Your task to perform on an android device: View the shopping cart on ebay.com. Image 0: 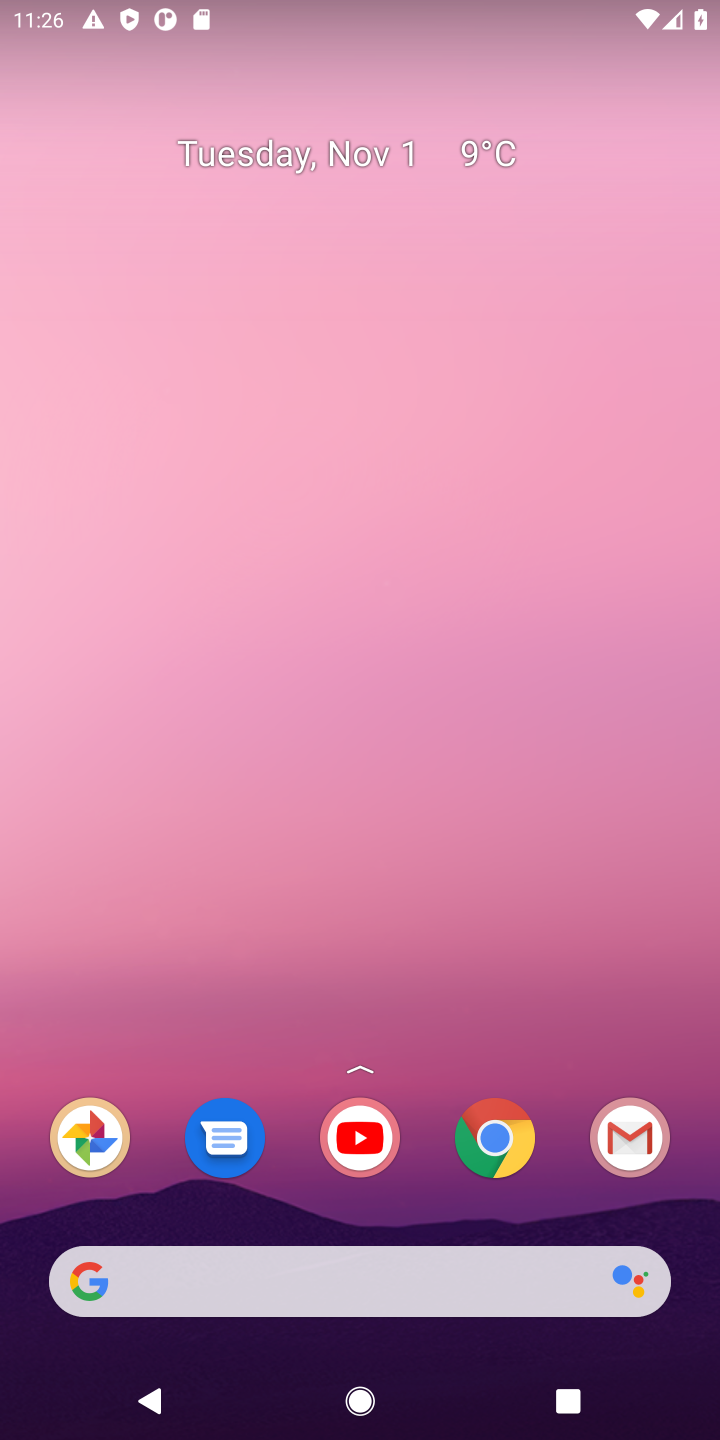
Step 0: click (457, 1274)
Your task to perform on an android device: View the shopping cart on ebay.com. Image 1: 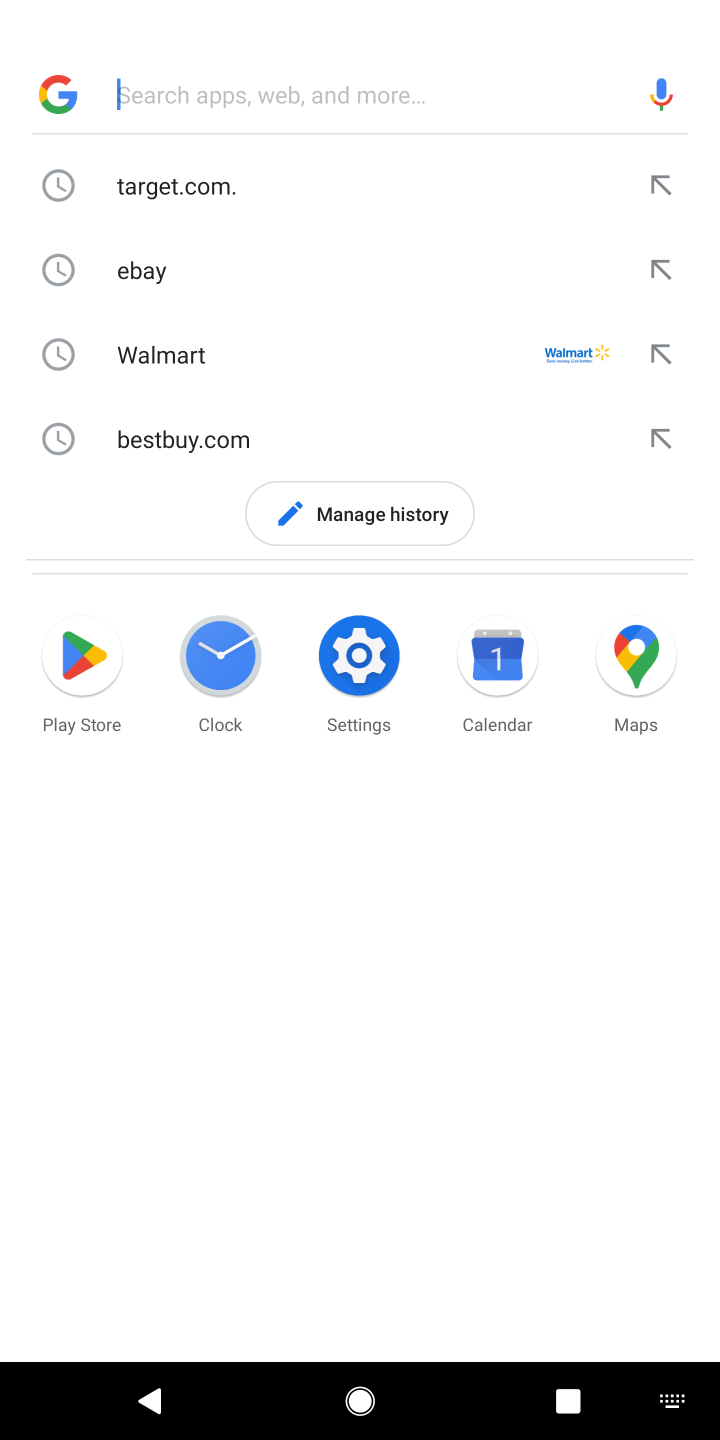
Step 1: type "ebay.com"
Your task to perform on an android device: View the shopping cart on ebay.com. Image 2: 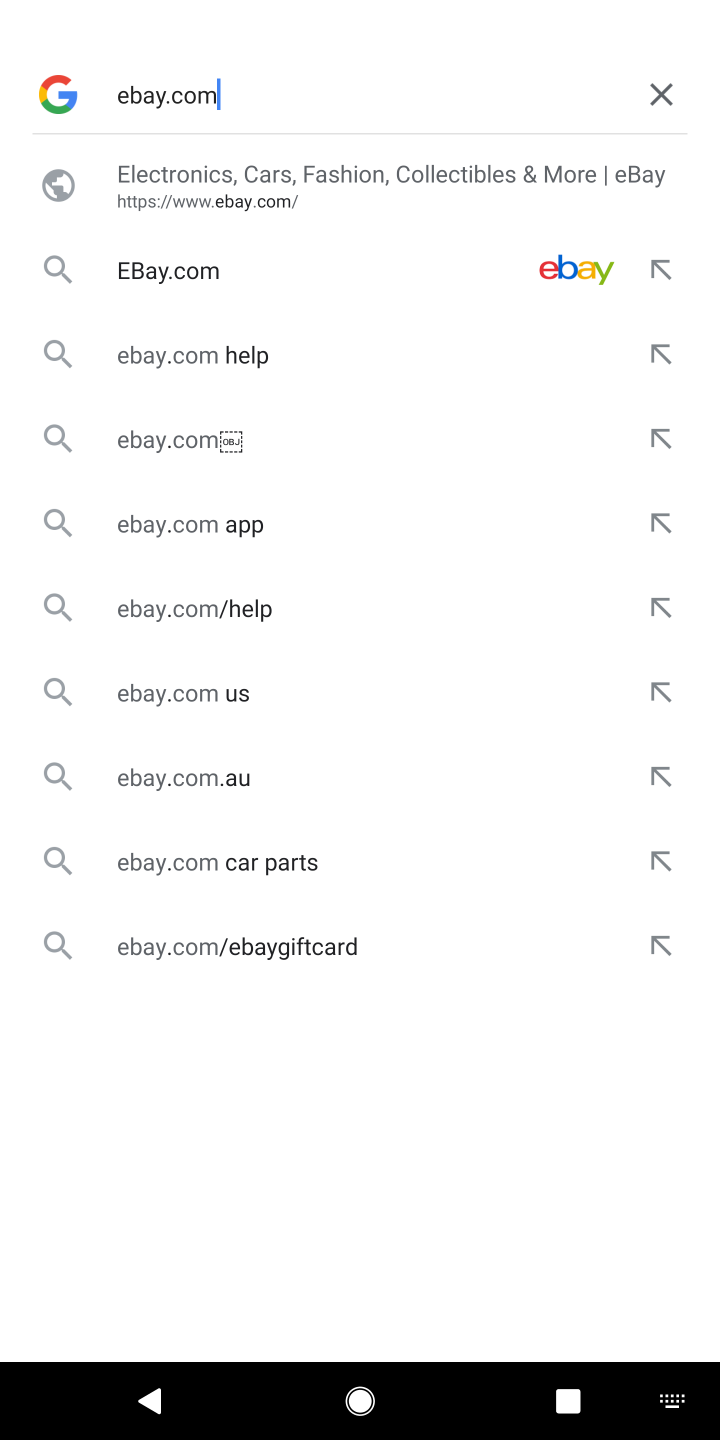
Step 2: click (170, 269)
Your task to perform on an android device: View the shopping cart on ebay.com. Image 3: 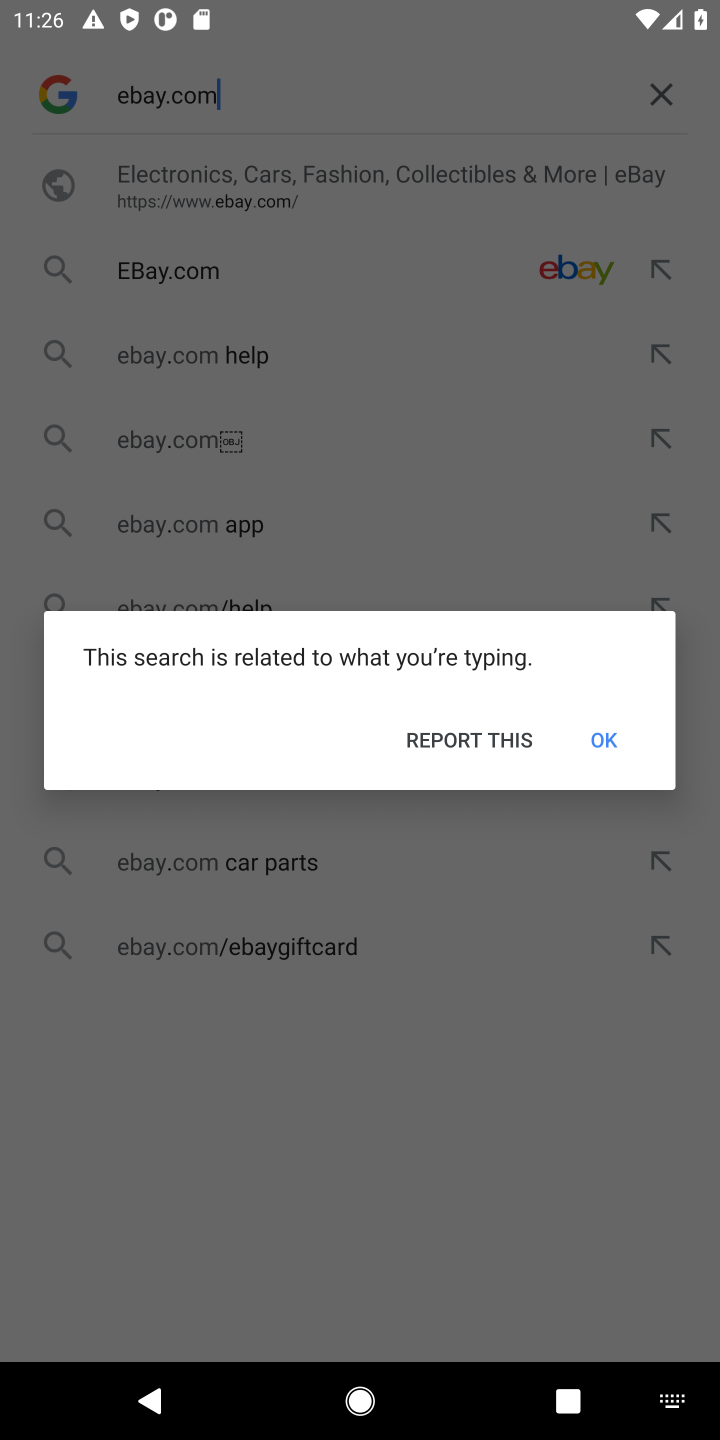
Step 3: click (604, 730)
Your task to perform on an android device: View the shopping cart on ebay.com. Image 4: 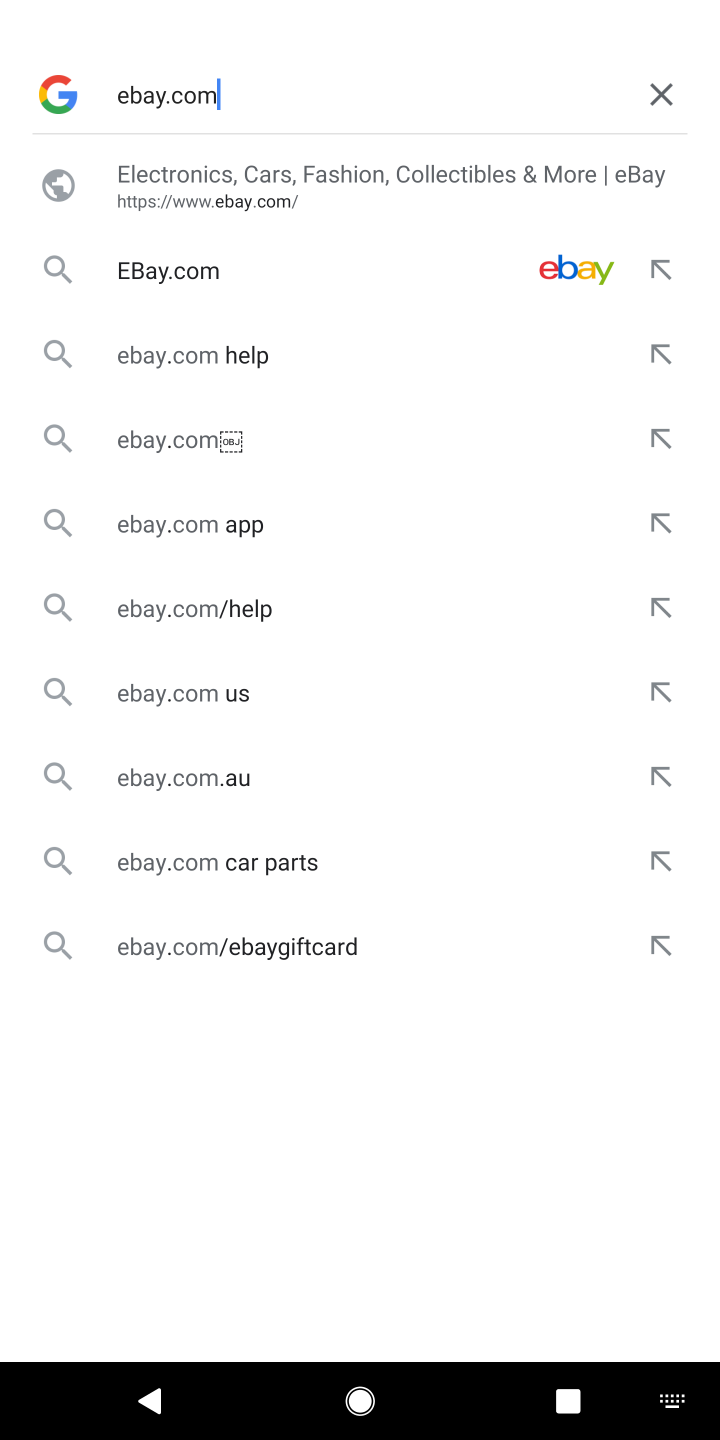
Step 4: click (287, 192)
Your task to perform on an android device: View the shopping cart on ebay.com. Image 5: 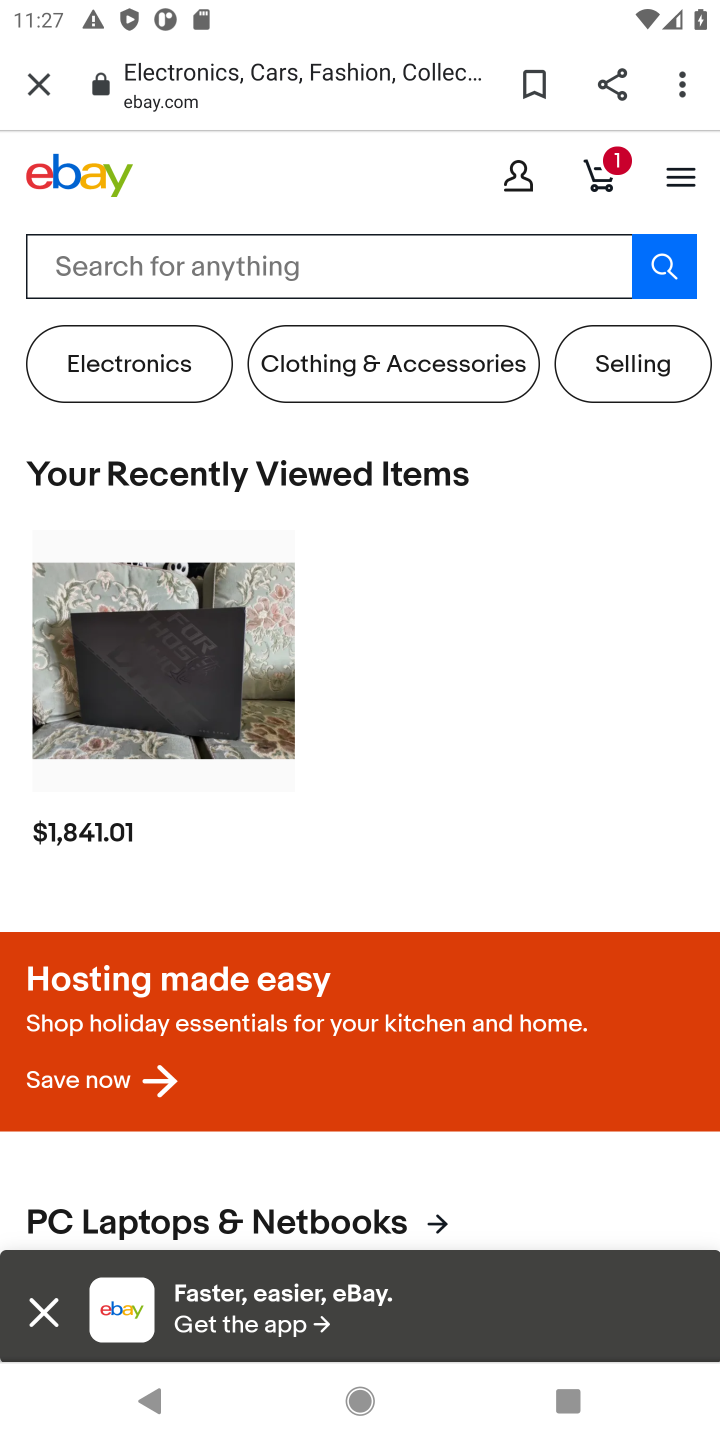
Step 5: click (238, 629)
Your task to perform on an android device: View the shopping cart on ebay.com. Image 6: 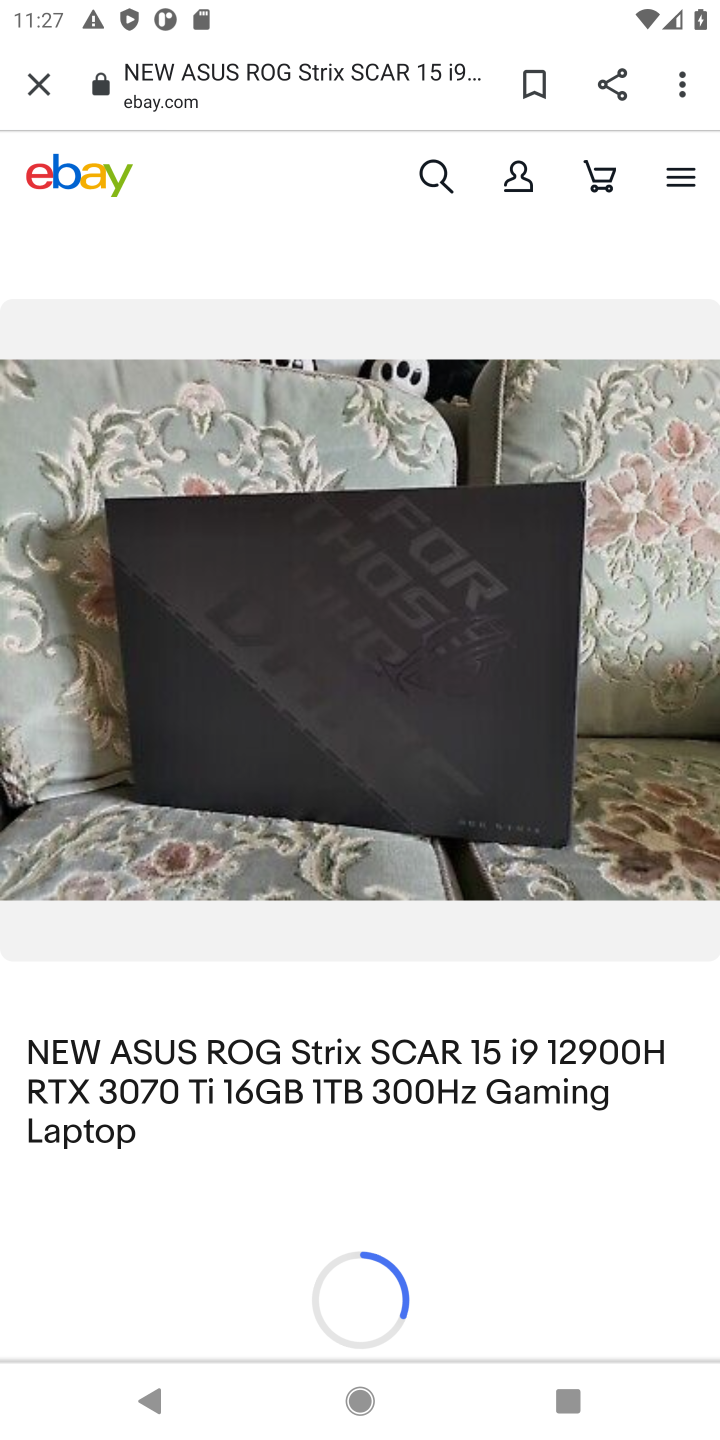
Step 6: drag from (366, 1050) to (346, 616)
Your task to perform on an android device: View the shopping cart on ebay.com. Image 7: 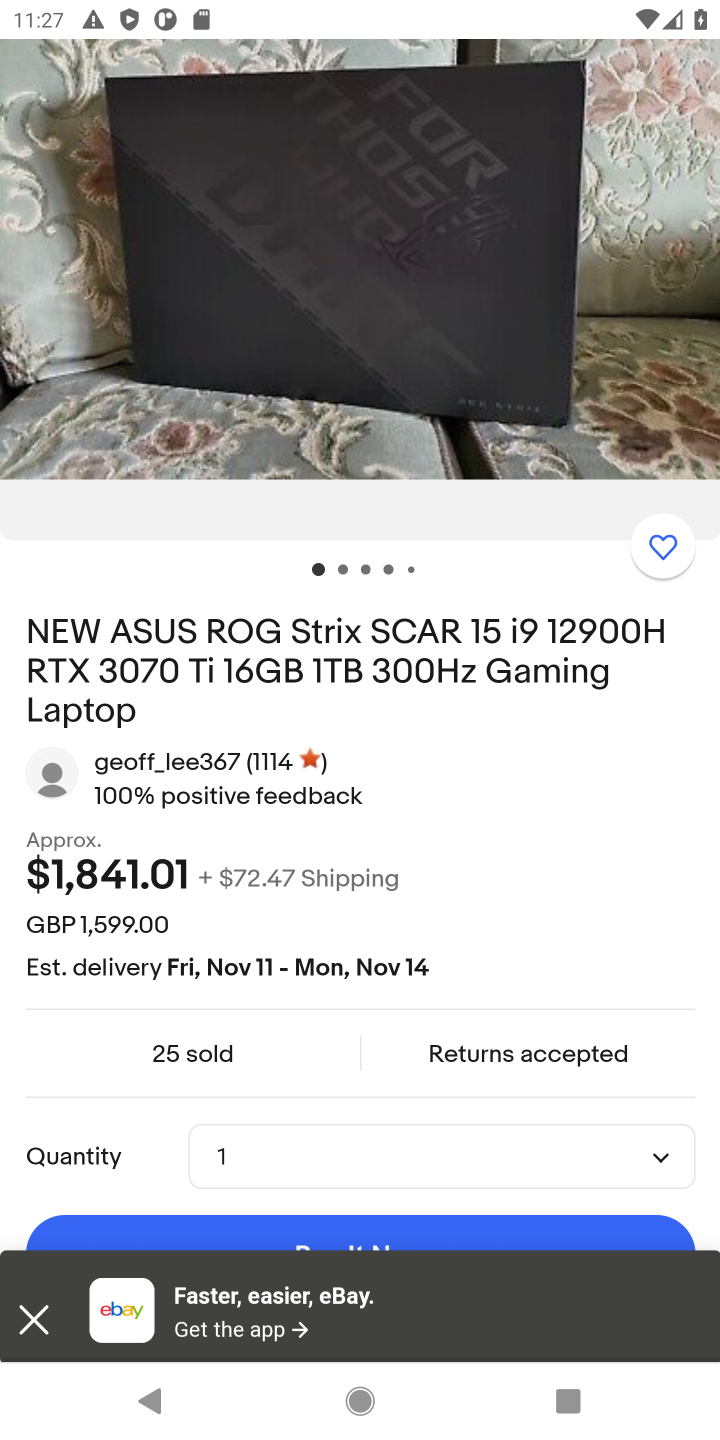
Step 7: drag from (389, 1107) to (371, 604)
Your task to perform on an android device: View the shopping cart on ebay.com. Image 8: 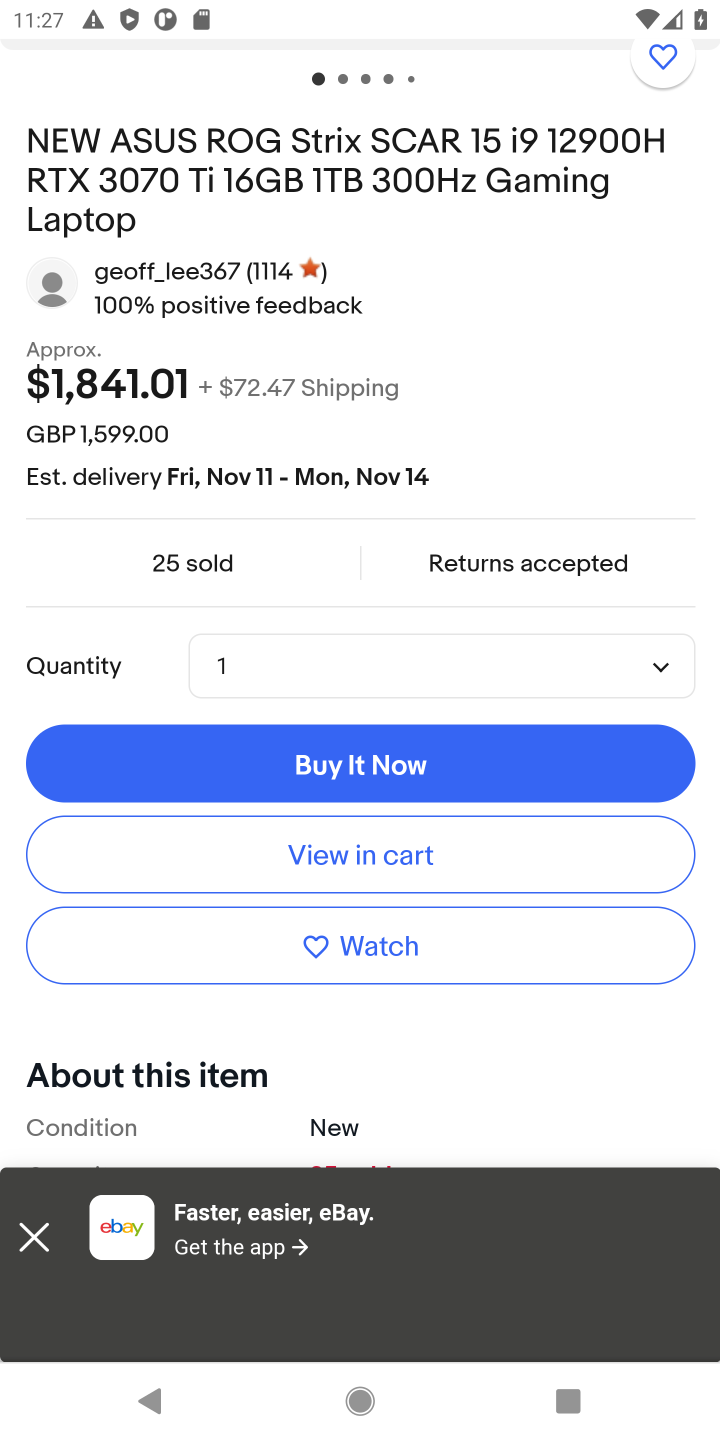
Step 8: click (340, 769)
Your task to perform on an android device: View the shopping cart on ebay.com. Image 9: 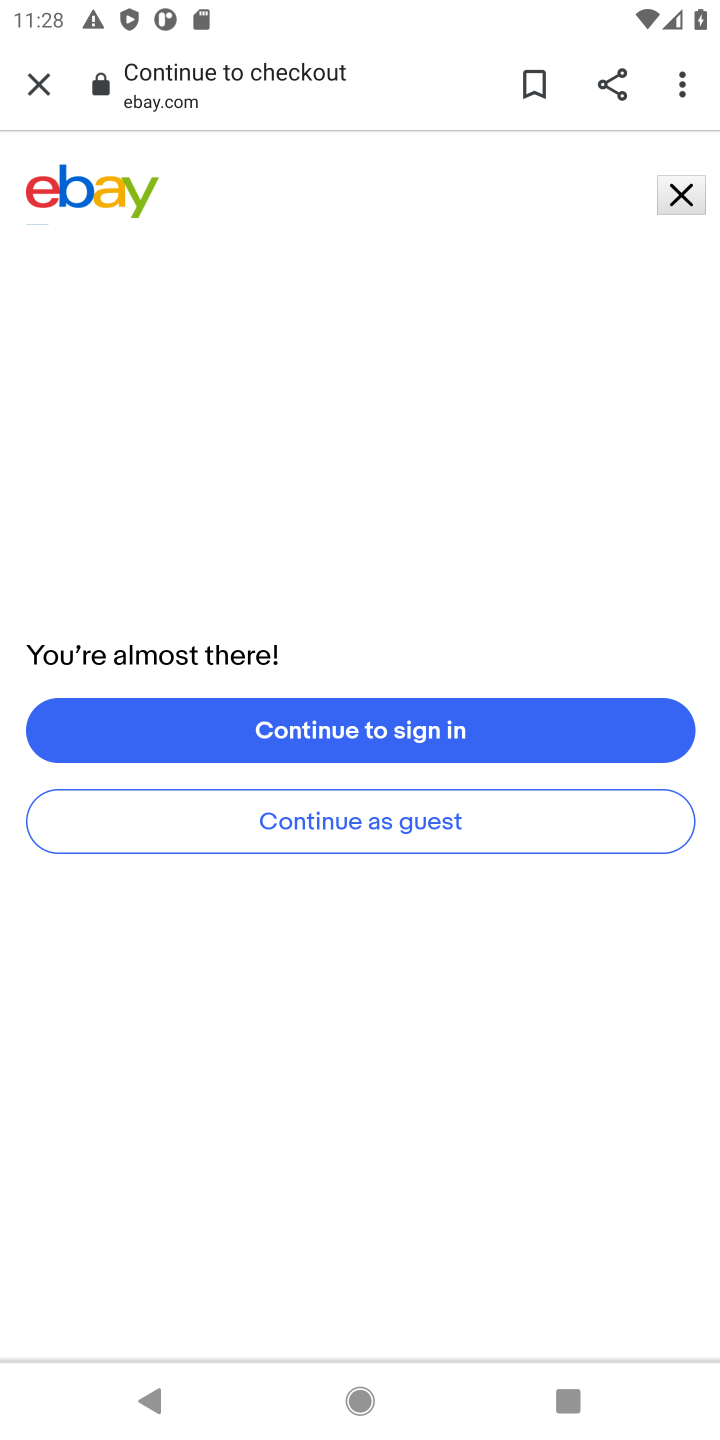
Step 9: click (352, 811)
Your task to perform on an android device: View the shopping cart on ebay.com. Image 10: 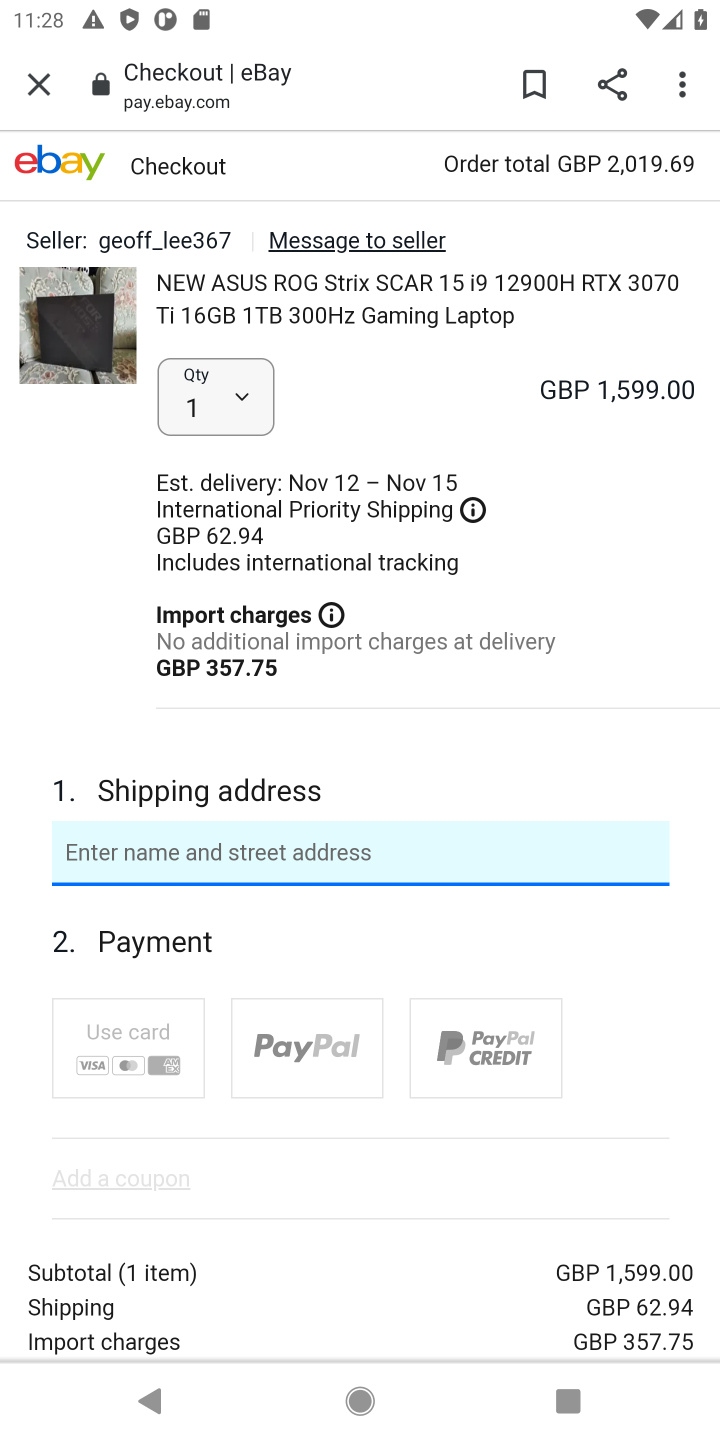
Step 10: task complete